Your task to perform on an android device: Open ESPN.com Image 0: 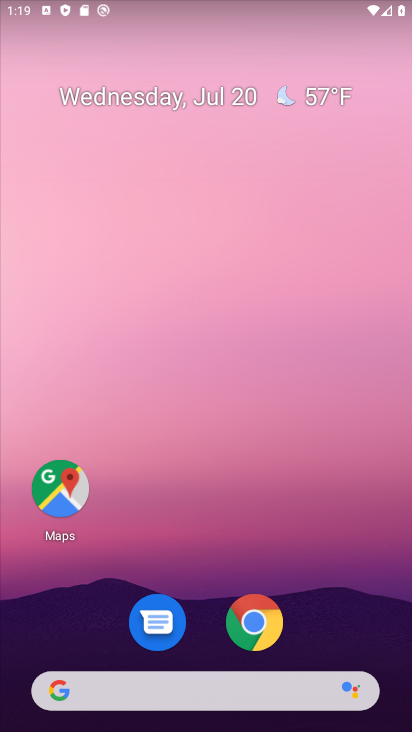
Step 0: click (266, 621)
Your task to perform on an android device: Open ESPN.com Image 1: 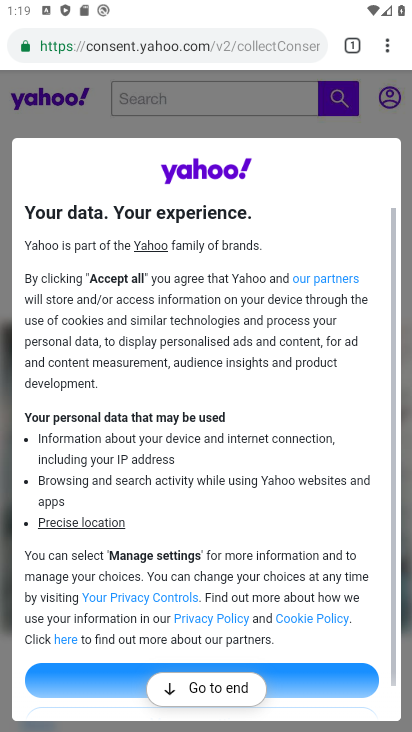
Step 1: click (355, 33)
Your task to perform on an android device: Open ESPN.com Image 2: 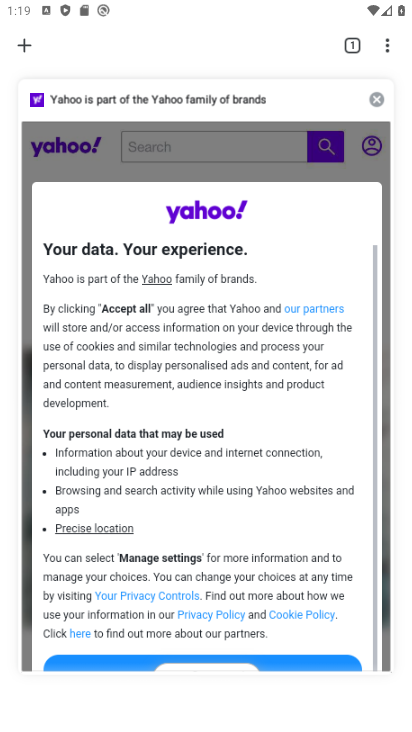
Step 2: click (19, 37)
Your task to perform on an android device: Open ESPN.com Image 3: 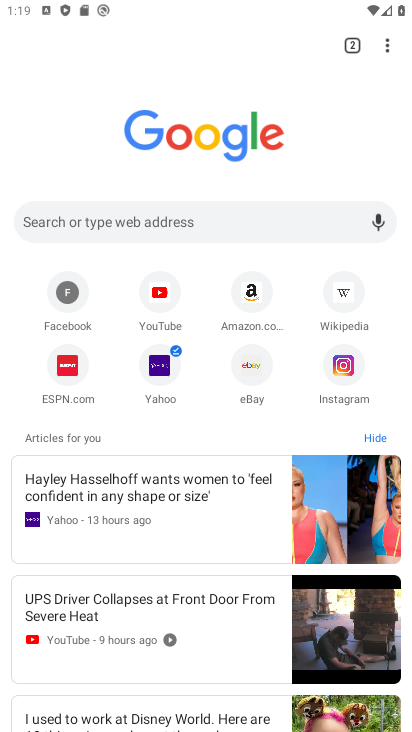
Step 3: click (79, 378)
Your task to perform on an android device: Open ESPN.com Image 4: 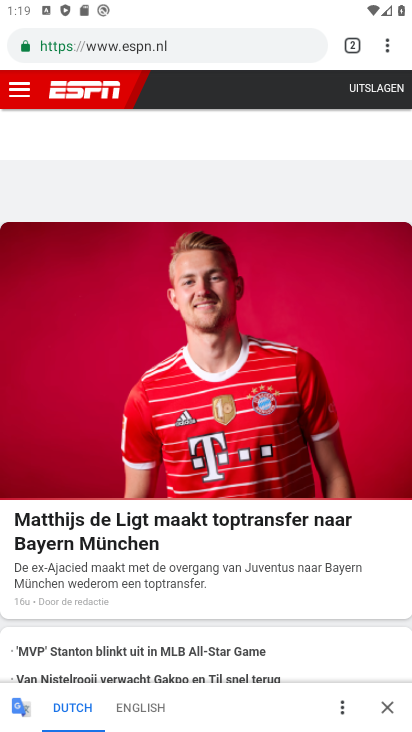
Step 4: task complete